Your task to perform on an android device: toggle priority inbox in the gmail app Image 0: 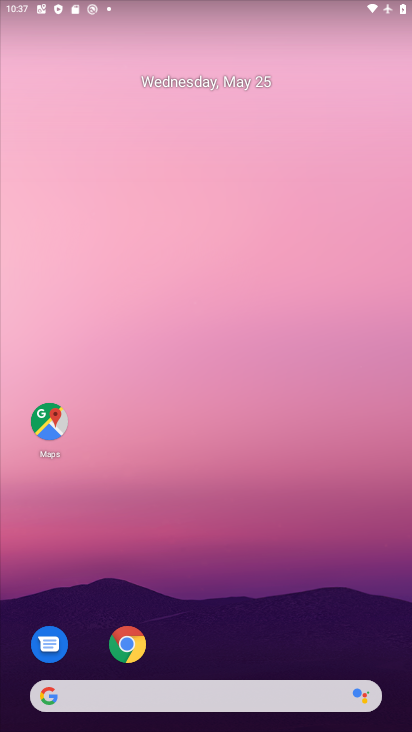
Step 0: drag from (223, 629) to (256, 105)
Your task to perform on an android device: toggle priority inbox in the gmail app Image 1: 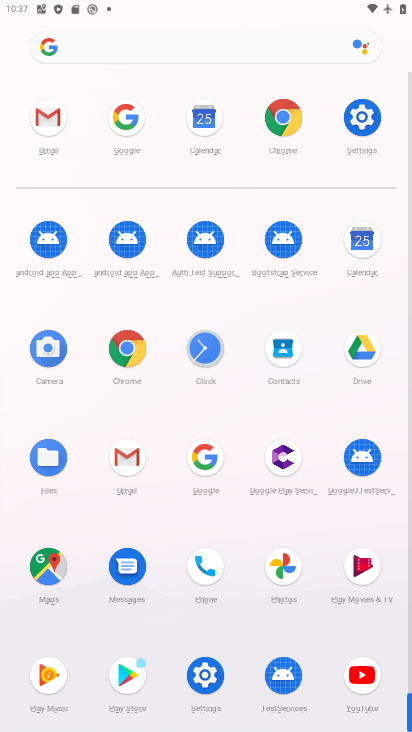
Step 1: click (120, 455)
Your task to perform on an android device: toggle priority inbox in the gmail app Image 2: 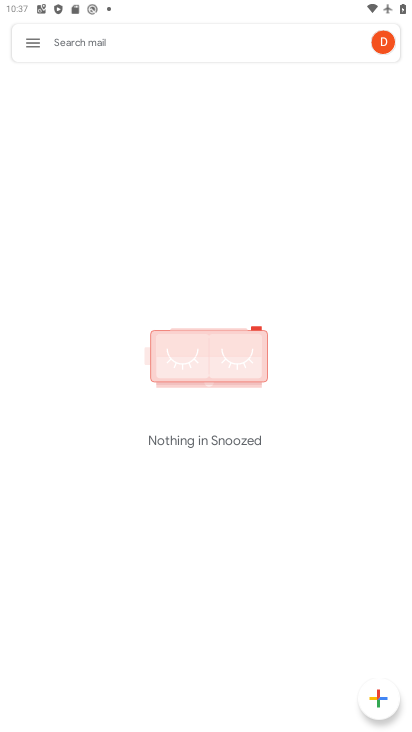
Step 2: click (25, 43)
Your task to perform on an android device: toggle priority inbox in the gmail app Image 3: 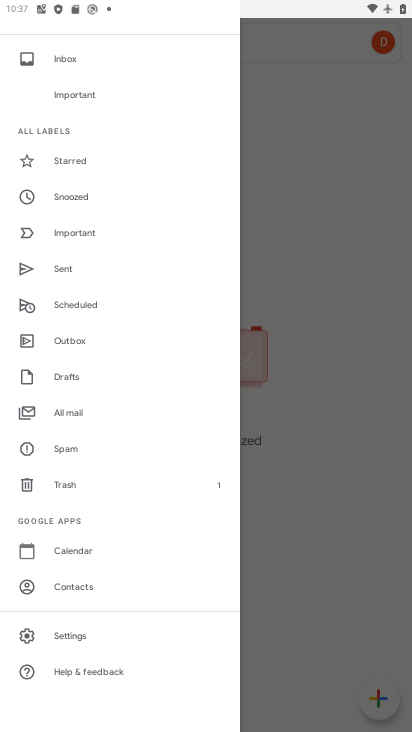
Step 3: click (107, 628)
Your task to perform on an android device: toggle priority inbox in the gmail app Image 4: 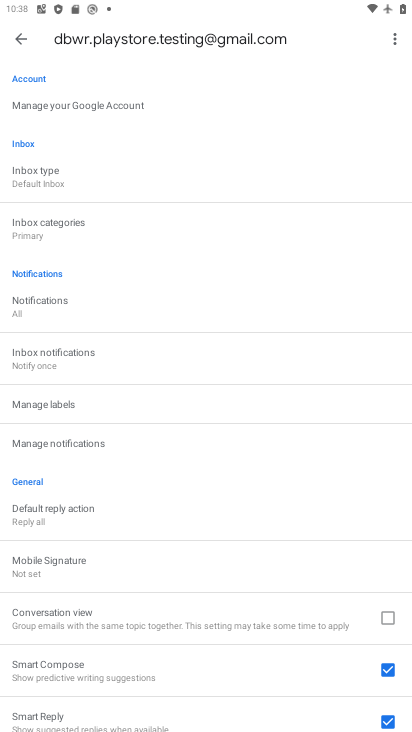
Step 4: click (45, 186)
Your task to perform on an android device: toggle priority inbox in the gmail app Image 5: 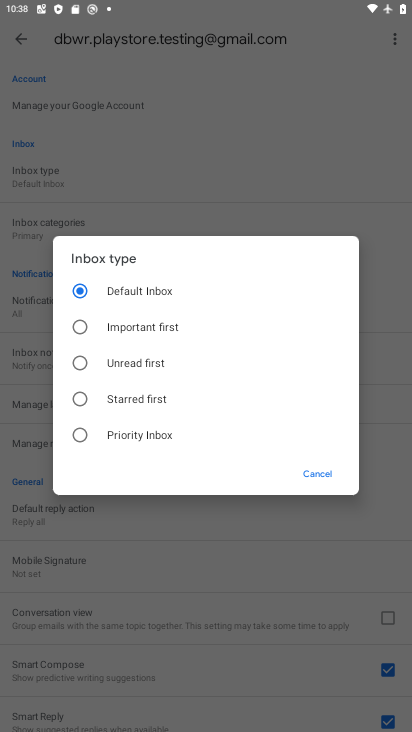
Step 5: click (82, 437)
Your task to perform on an android device: toggle priority inbox in the gmail app Image 6: 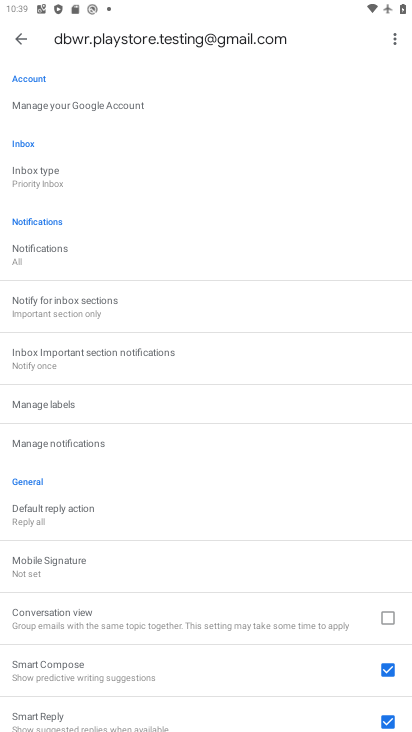
Step 6: task complete